Your task to perform on an android device: Go to calendar. Show me events next week Image 0: 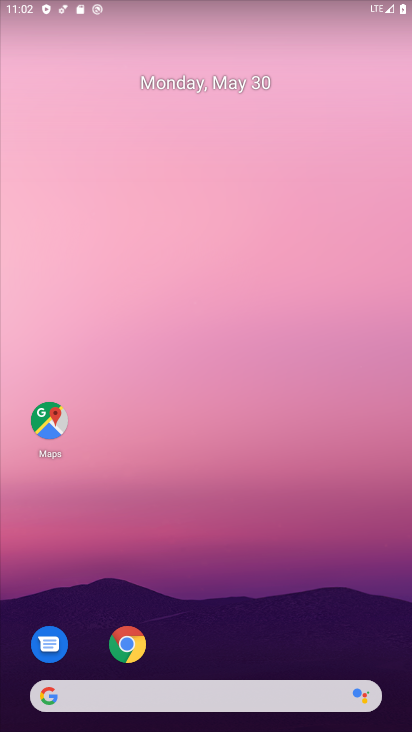
Step 0: drag from (239, 601) to (179, 231)
Your task to perform on an android device: Go to calendar. Show me events next week Image 1: 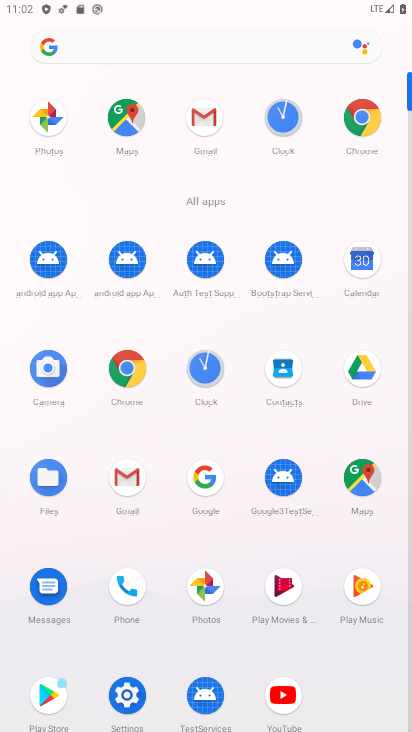
Step 1: click (353, 276)
Your task to perform on an android device: Go to calendar. Show me events next week Image 2: 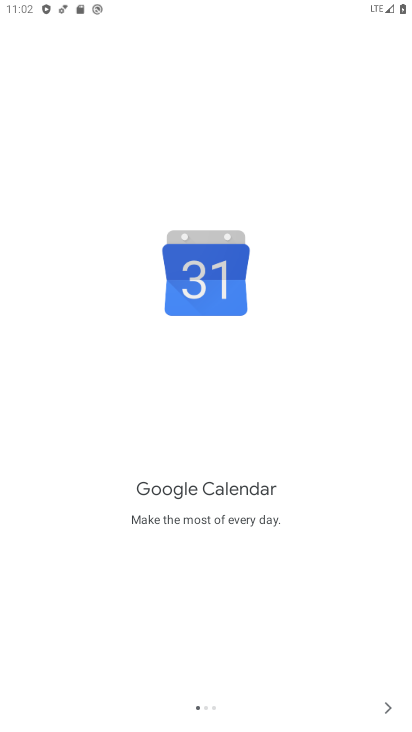
Step 2: click (393, 712)
Your task to perform on an android device: Go to calendar. Show me events next week Image 3: 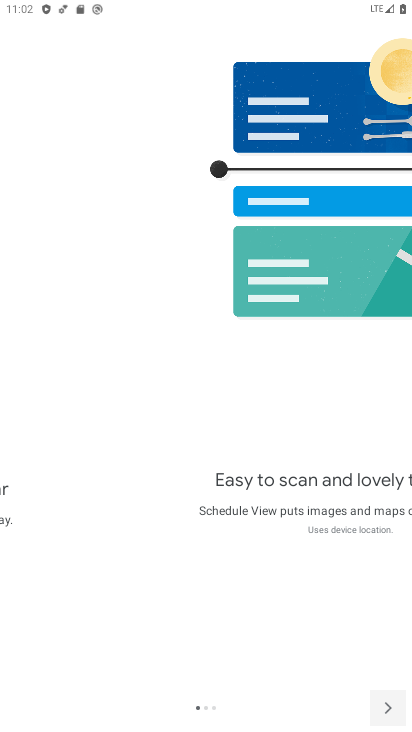
Step 3: click (389, 711)
Your task to perform on an android device: Go to calendar. Show me events next week Image 4: 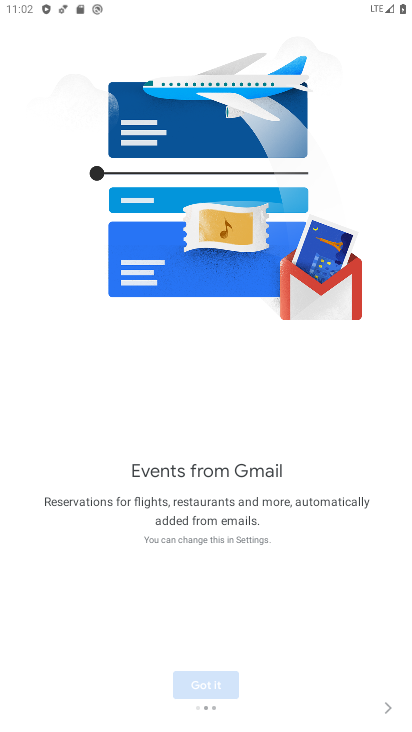
Step 4: click (389, 711)
Your task to perform on an android device: Go to calendar. Show me events next week Image 5: 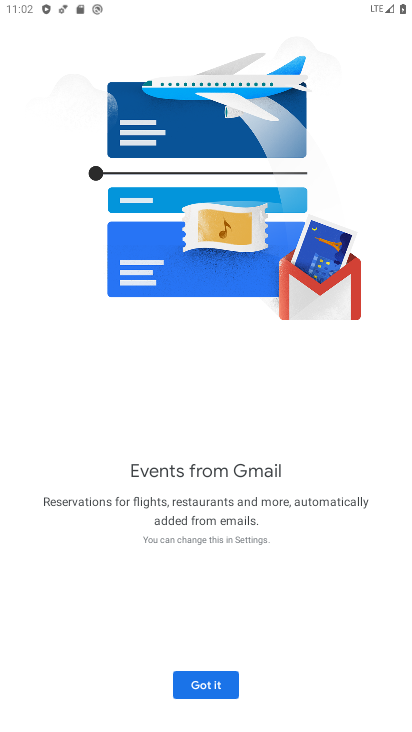
Step 5: click (211, 684)
Your task to perform on an android device: Go to calendar. Show me events next week Image 6: 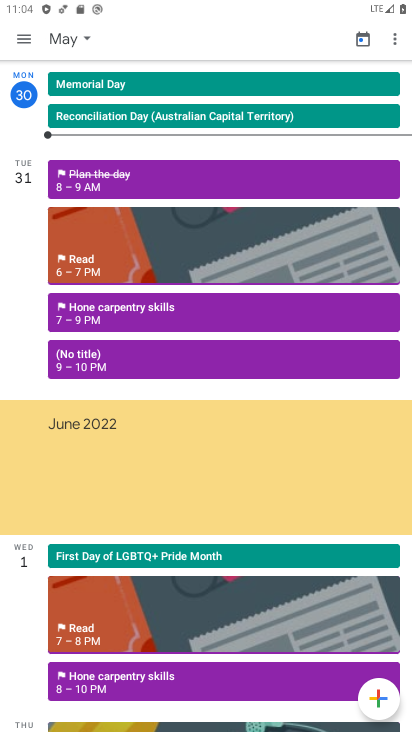
Step 6: click (88, 36)
Your task to perform on an android device: Go to calendar. Show me events next week Image 7: 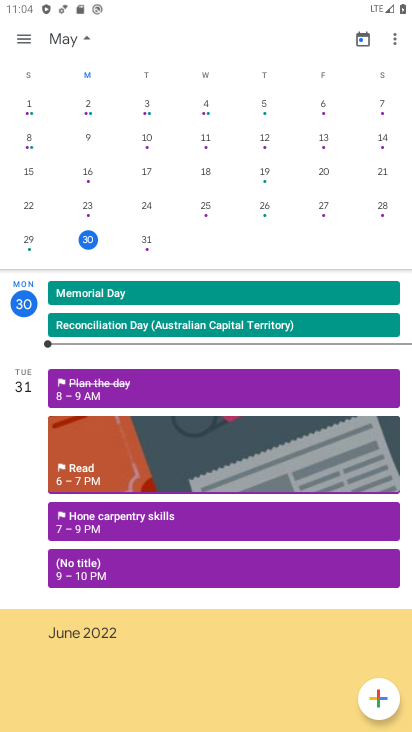
Step 7: drag from (406, 231) to (9, 230)
Your task to perform on an android device: Go to calendar. Show me events next week Image 8: 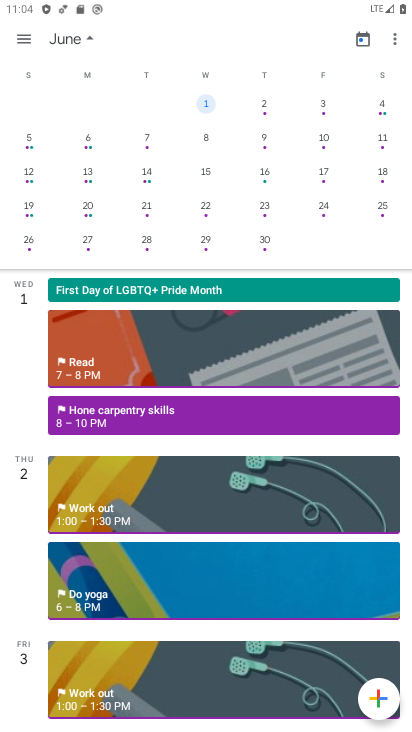
Step 8: click (216, 96)
Your task to perform on an android device: Go to calendar. Show me events next week Image 9: 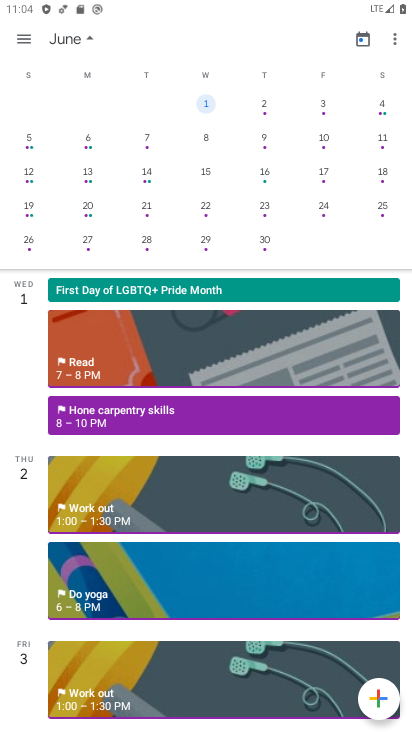
Step 9: task complete